Your task to perform on an android device: Go to Amazon Image 0: 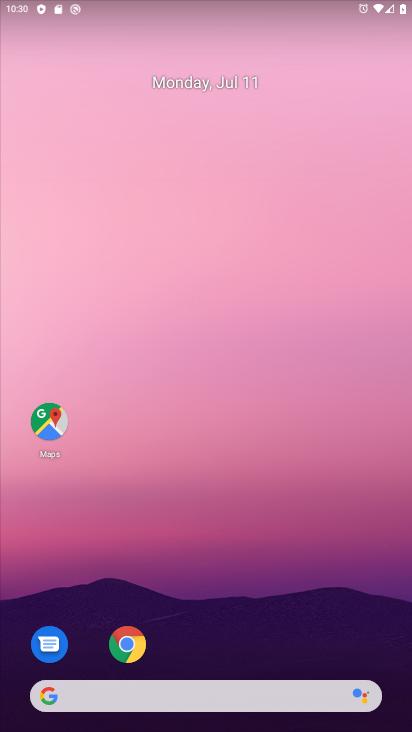
Step 0: press home button
Your task to perform on an android device: Go to Amazon Image 1: 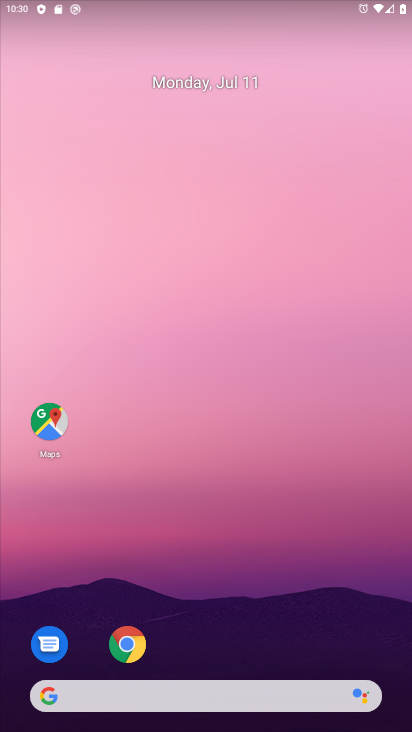
Step 1: click (115, 658)
Your task to perform on an android device: Go to Amazon Image 2: 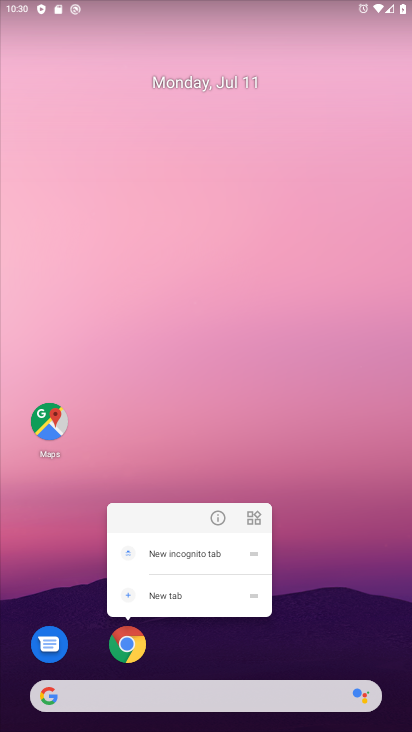
Step 2: click (123, 644)
Your task to perform on an android device: Go to Amazon Image 3: 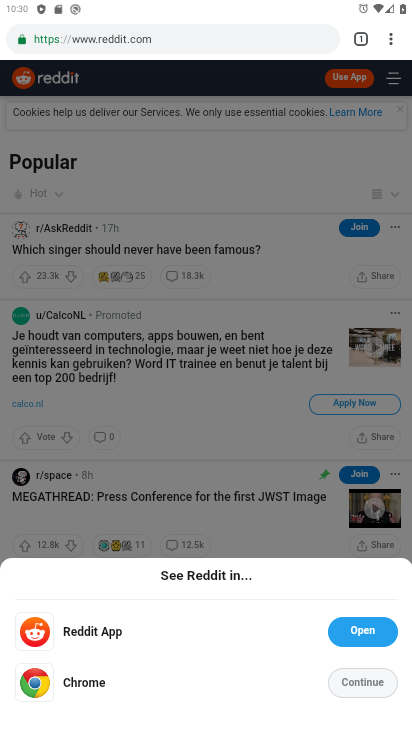
Step 3: drag from (390, 44) to (257, 73)
Your task to perform on an android device: Go to Amazon Image 4: 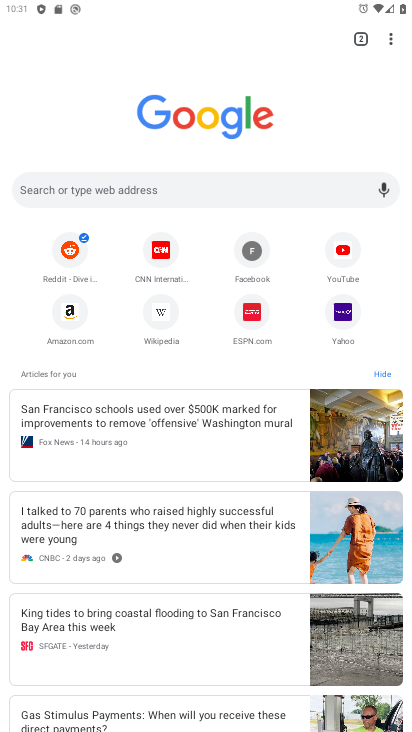
Step 4: click (69, 311)
Your task to perform on an android device: Go to Amazon Image 5: 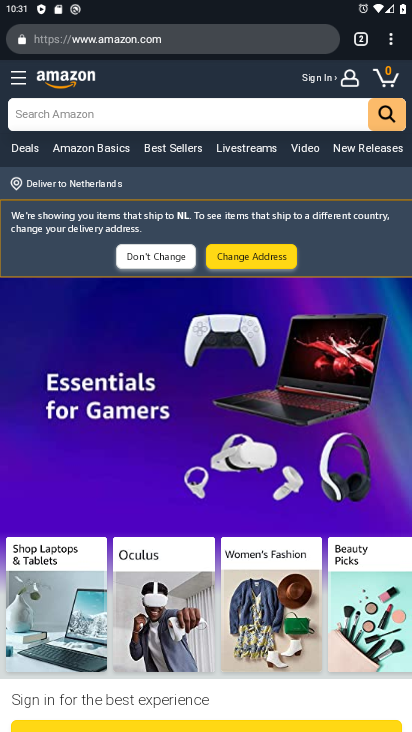
Step 5: task complete